Your task to perform on an android device: Open Google Image 0: 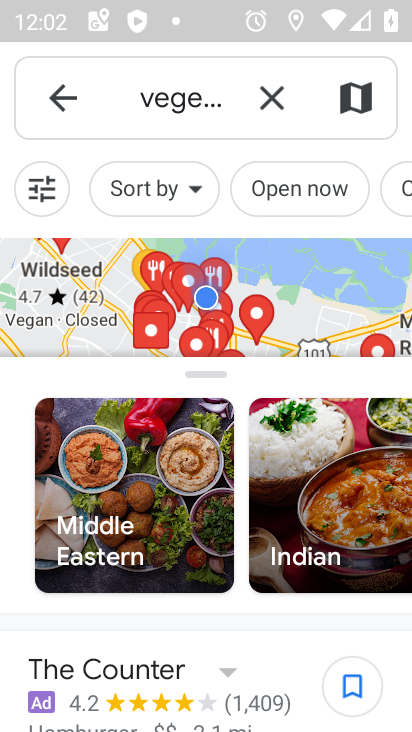
Step 0: press home button
Your task to perform on an android device: Open Google Image 1: 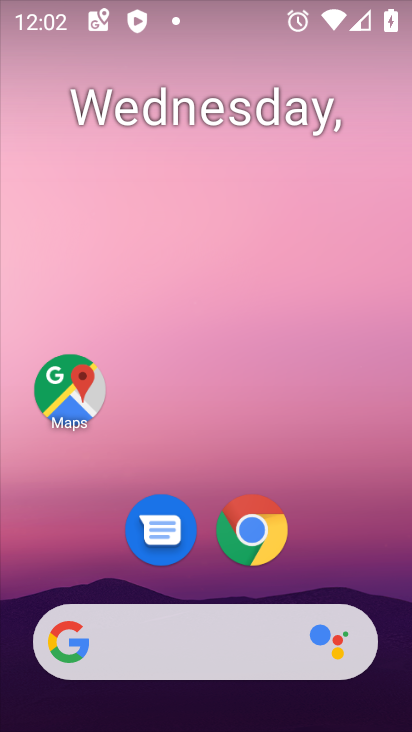
Step 1: drag from (203, 588) to (290, 223)
Your task to perform on an android device: Open Google Image 2: 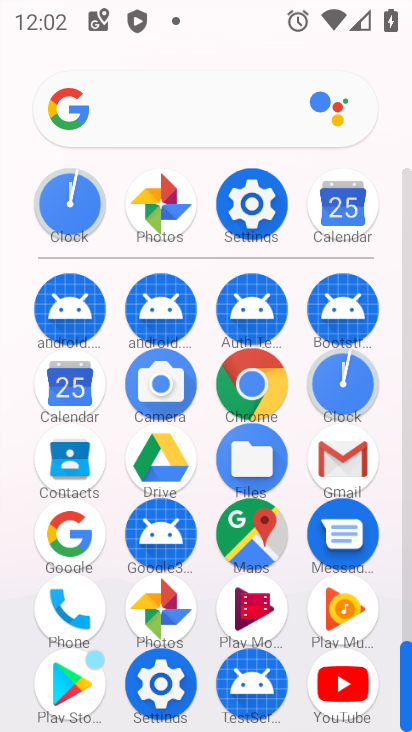
Step 2: click (68, 537)
Your task to perform on an android device: Open Google Image 3: 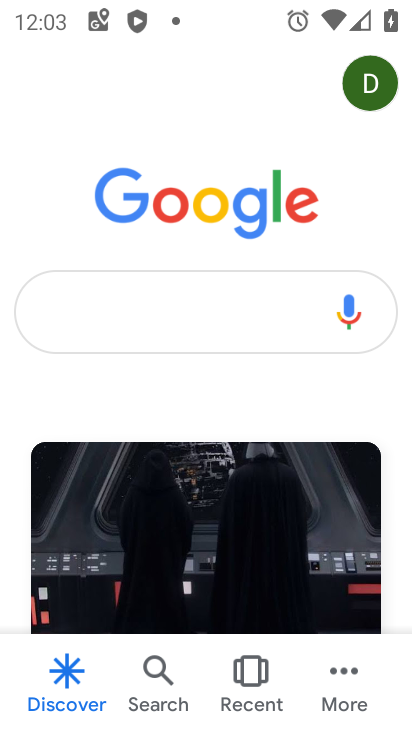
Step 3: task complete